Your task to perform on an android device: change the upload size in google photos Image 0: 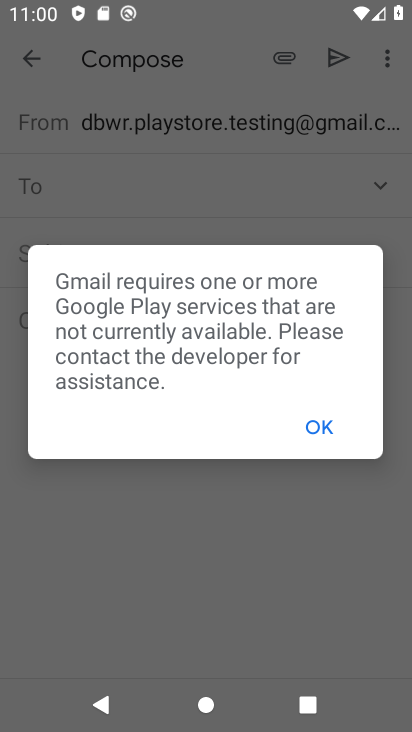
Step 0: press home button
Your task to perform on an android device: change the upload size in google photos Image 1: 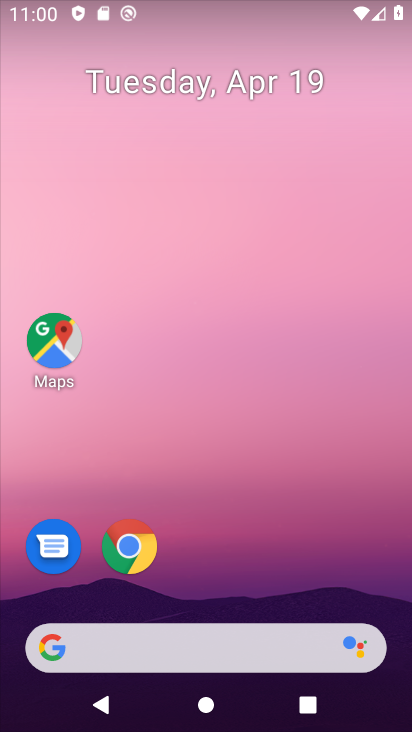
Step 1: drag from (265, 594) to (247, 27)
Your task to perform on an android device: change the upload size in google photos Image 2: 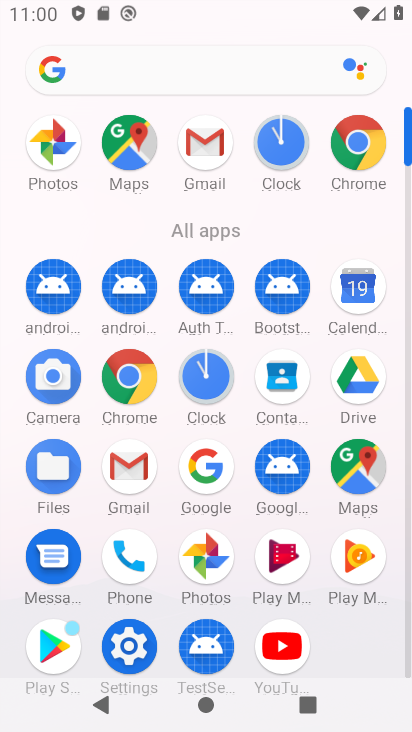
Step 2: click (192, 623)
Your task to perform on an android device: change the upload size in google photos Image 3: 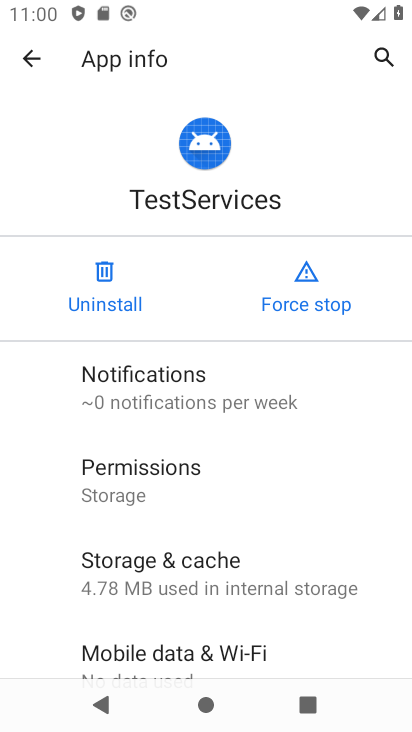
Step 3: press back button
Your task to perform on an android device: change the upload size in google photos Image 4: 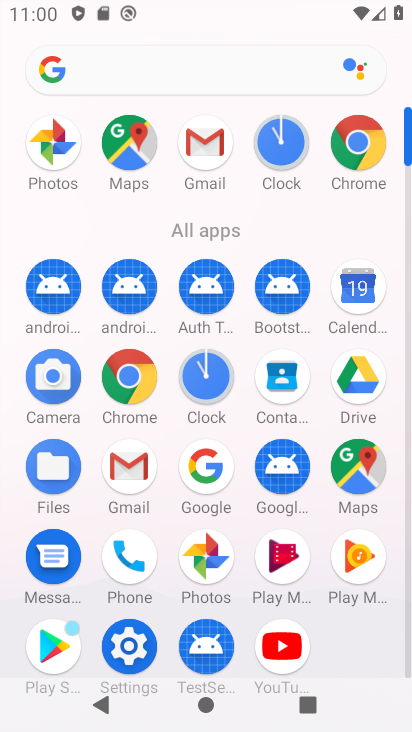
Step 4: click (201, 564)
Your task to perform on an android device: change the upload size in google photos Image 5: 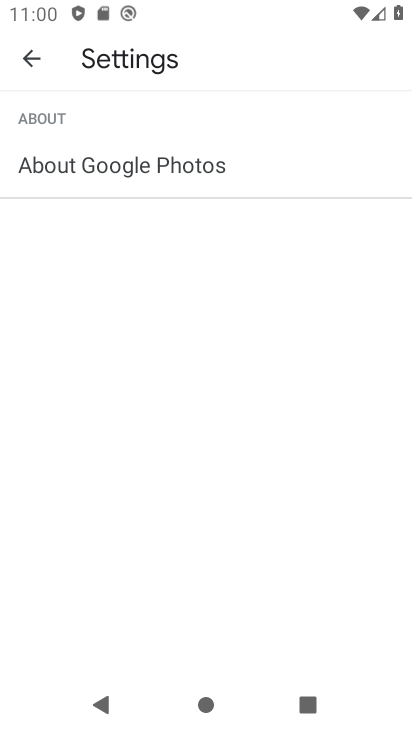
Step 5: click (28, 72)
Your task to perform on an android device: change the upload size in google photos Image 6: 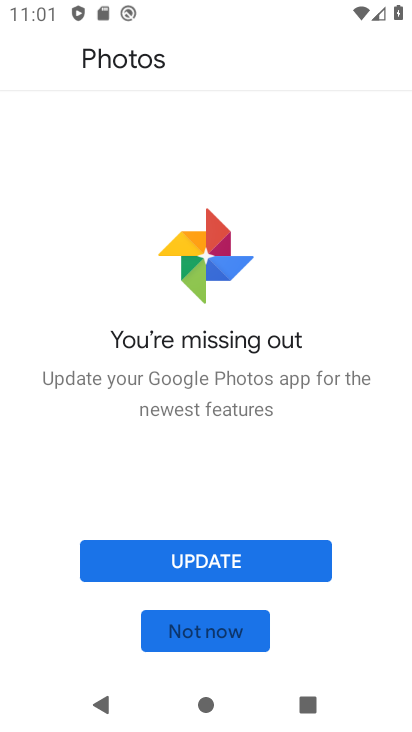
Step 6: click (233, 573)
Your task to perform on an android device: change the upload size in google photos Image 7: 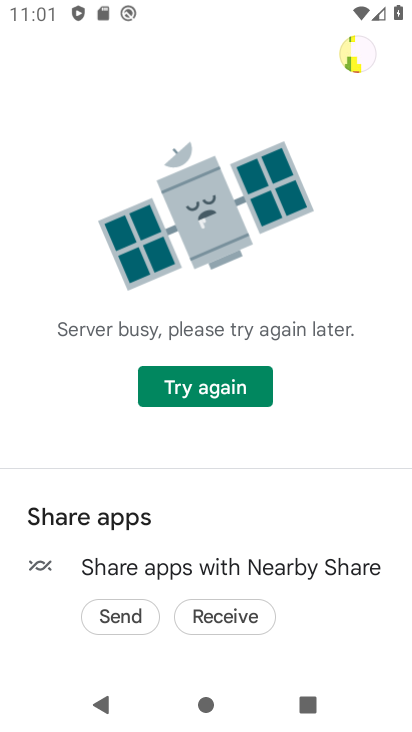
Step 7: press back button
Your task to perform on an android device: change the upload size in google photos Image 8: 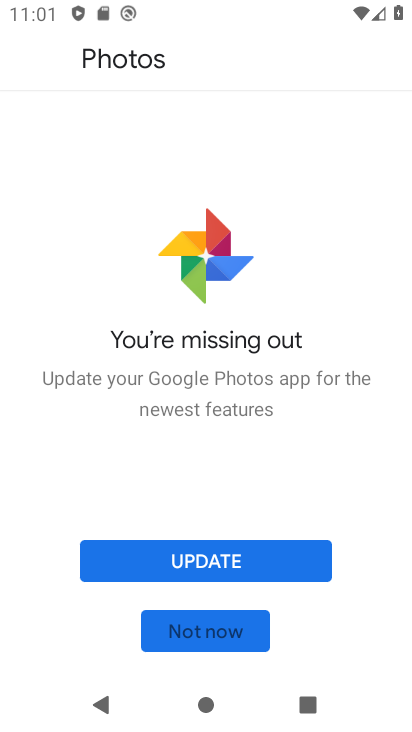
Step 8: click (250, 647)
Your task to perform on an android device: change the upload size in google photos Image 9: 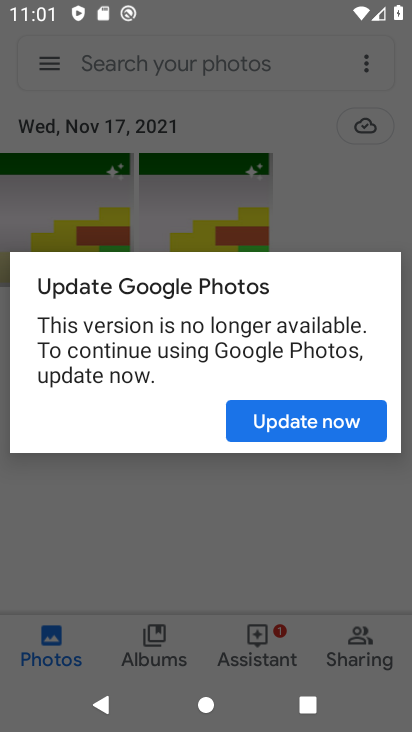
Step 9: click (295, 402)
Your task to perform on an android device: change the upload size in google photos Image 10: 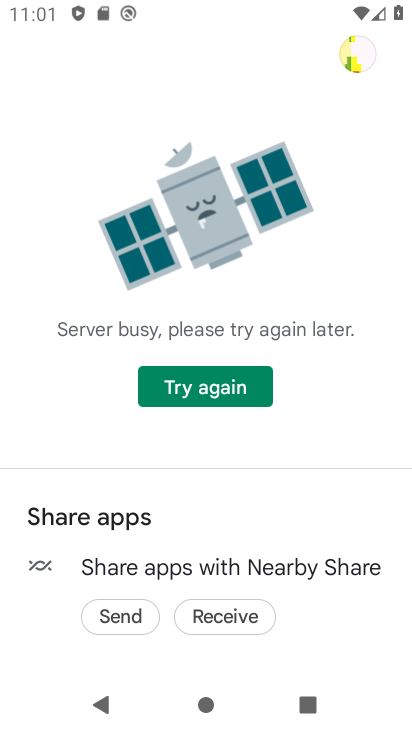
Step 10: press back button
Your task to perform on an android device: change the upload size in google photos Image 11: 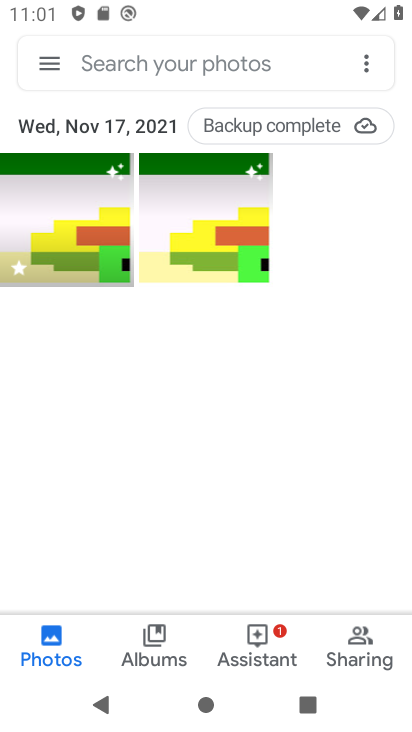
Step 11: click (291, 130)
Your task to perform on an android device: change the upload size in google photos Image 12: 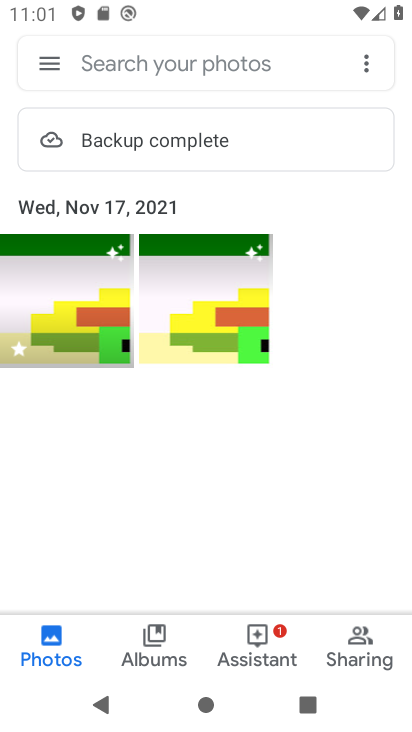
Step 12: click (291, 130)
Your task to perform on an android device: change the upload size in google photos Image 13: 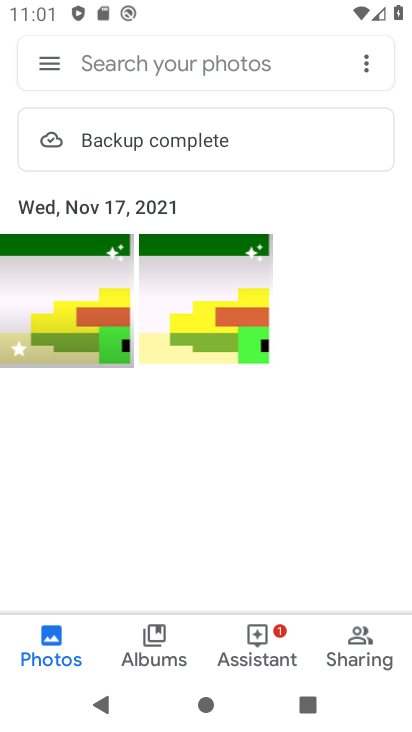
Step 13: click (372, 55)
Your task to perform on an android device: change the upload size in google photos Image 14: 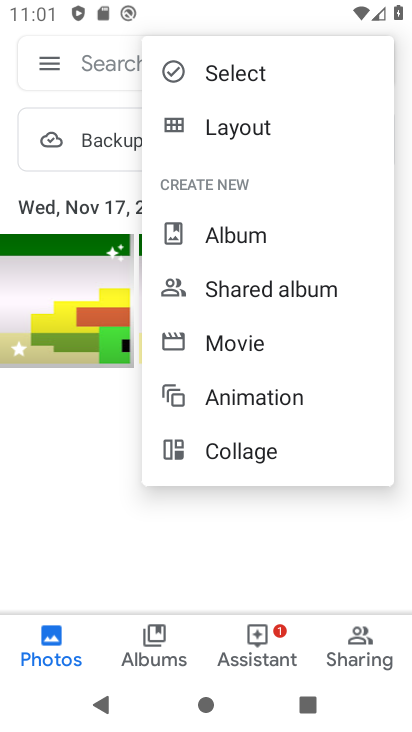
Step 14: click (24, 502)
Your task to perform on an android device: change the upload size in google photos Image 15: 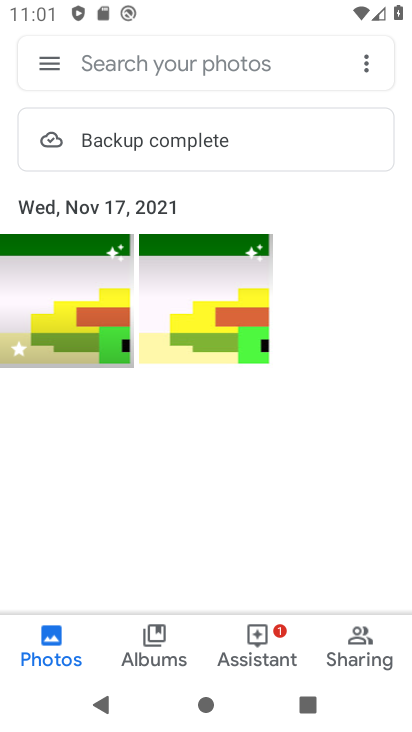
Step 15: click (40, 66)
Your task to perform on an android device: change the upload size in google photos Image 16: 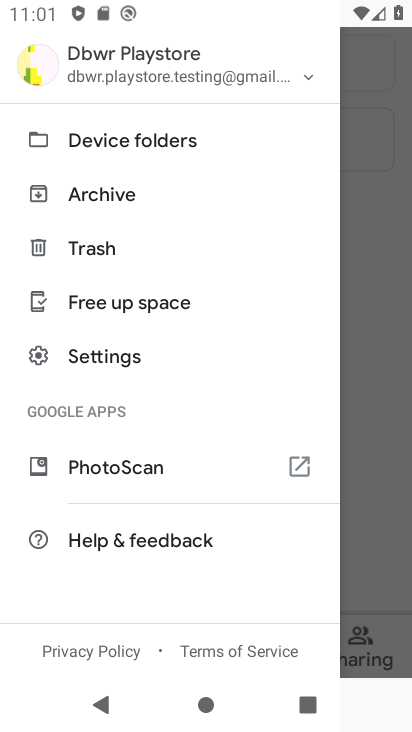
Step 16: click (90, 357)
Your task to perform on an android device: change the upload size in google photos Image 17: 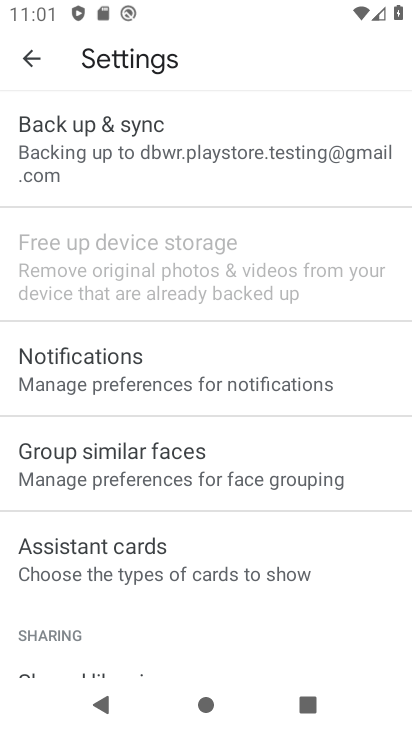
Step 17: click (118, 127)
Your task to perform on an android device: change the upload size in google photos Image 18: 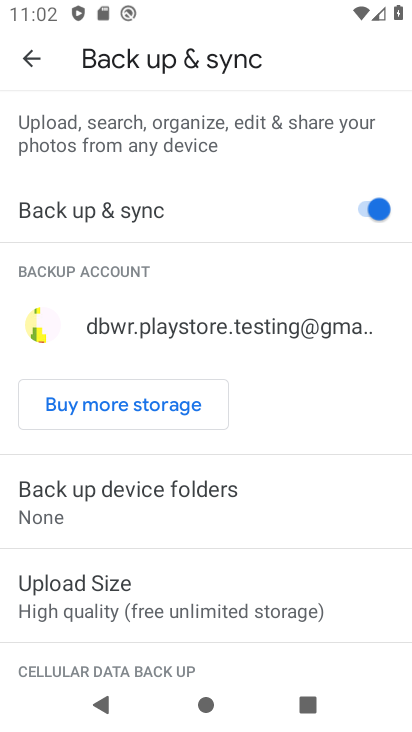
Step 18: click (119, 608)
Your task to perform on an android device: change the upload size in google photos Image 19: 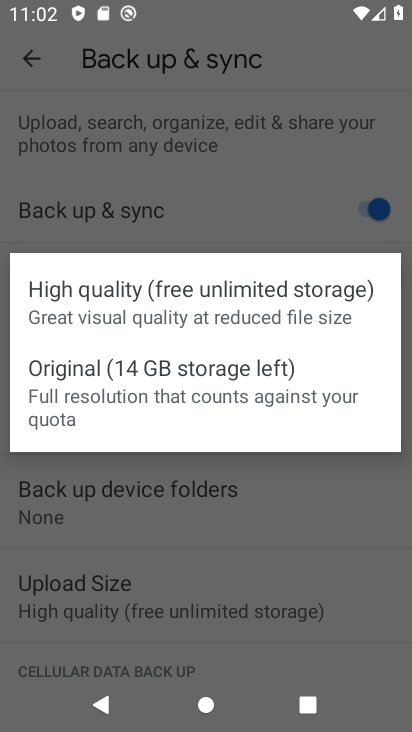
Step 19: click (182, 383)
Your task to perform on an android device: change the upload size in google photos Image 20: 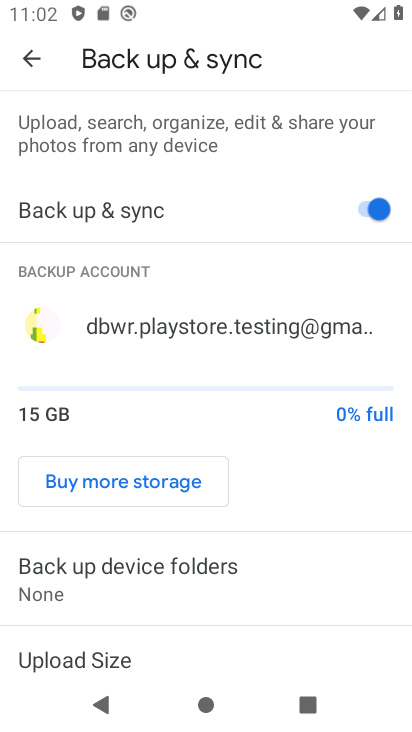
Step 20: task complete